Your task to perform on an android device: Open the phone app and click the voicemail tab. Image 0: 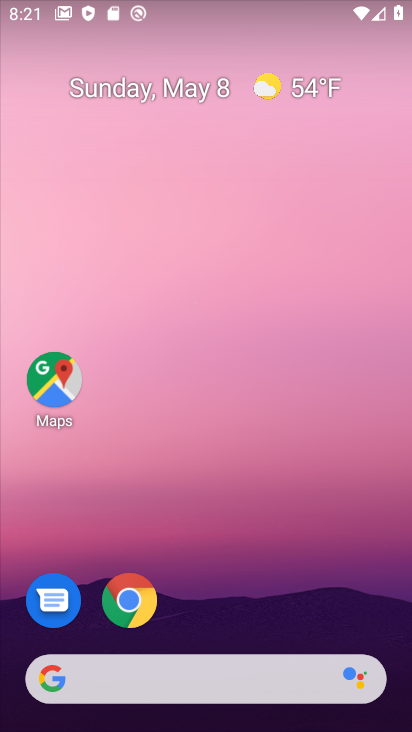
Step 0: drag from (179, 618) to (201, 303)
Your task to perform on an android device: Open the phone app and click the voicemail tab. Image 1: 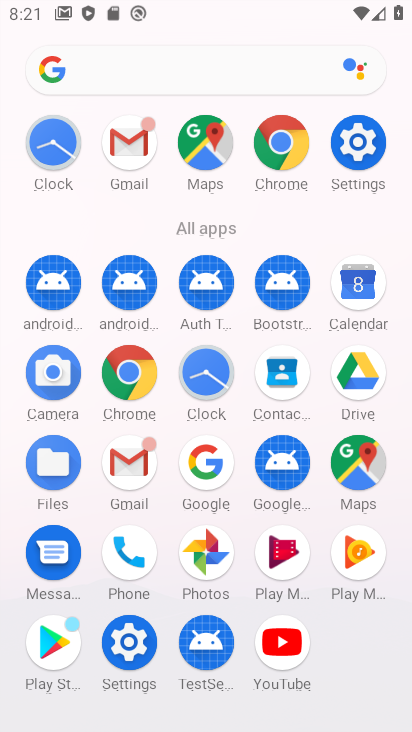
Step 1: click (135, 560)
Your task to perform on an android device: Open the phone app and click the voicemail tab. Image 2: 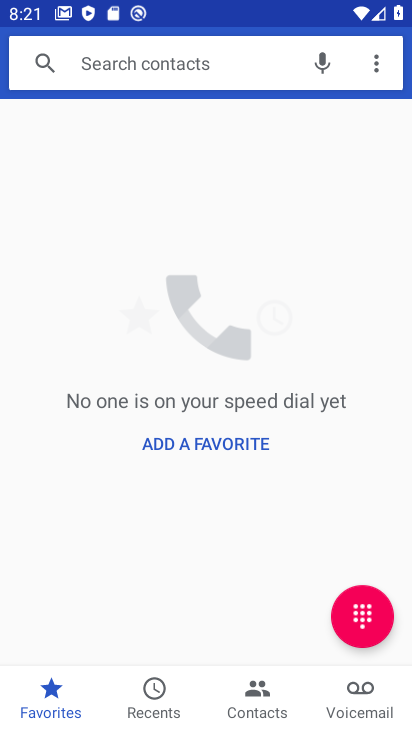
Step 2: click (352, 696)
Your task to perform on an android device: Open the phone app and click the voicemail tab. Image 3: 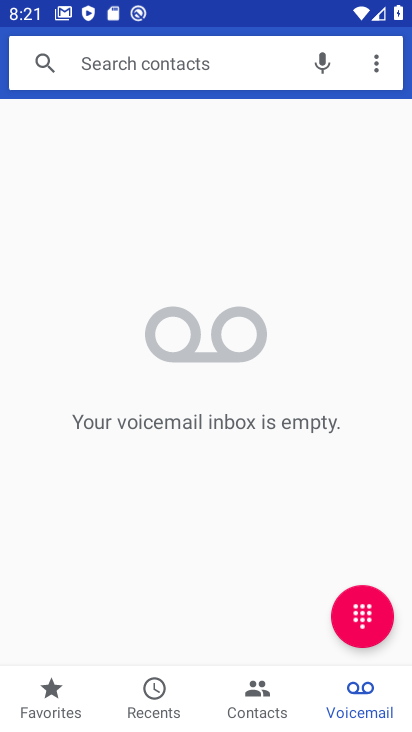
Step 3: task complete